Your task to perform on an android device: check android version Image 0: 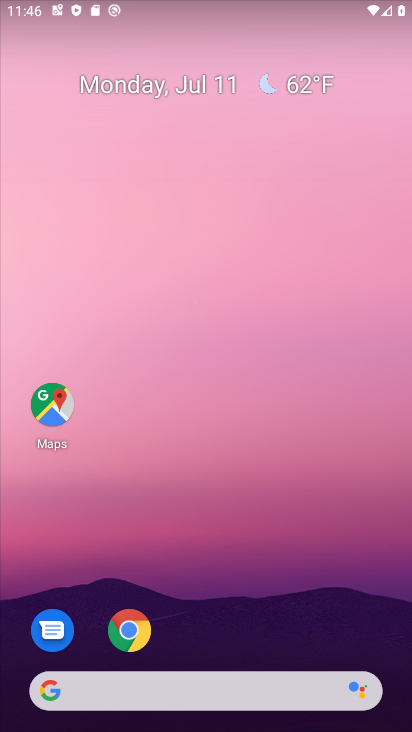
Step 0: drag from (231, 679) to (282, 71)
Your task to perform on an android device: check android version Image 1: 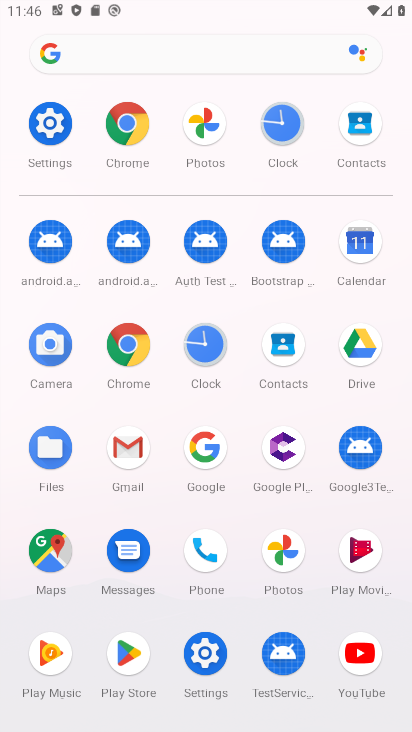
Step 1: click (51, 121)
Your task to perform on an android device: check android version Image 2: 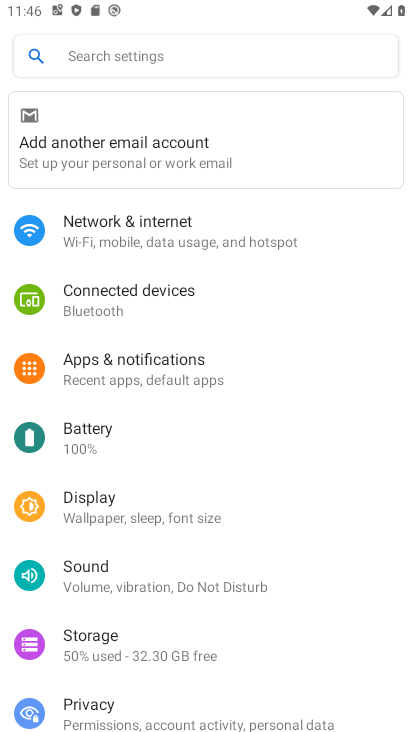
Step 2: drag from (160, 688) to (250, 100)
Your task to perform on an android device: check android version Image 3: 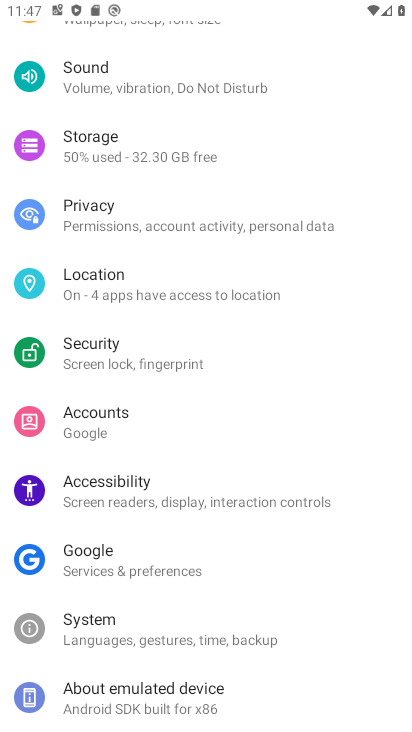
Step 3: click (206, 701)
Your task to perform on an android device: check android version Image 4: 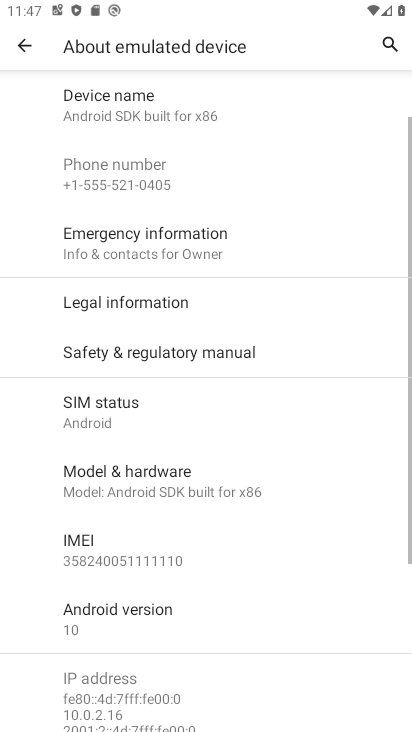
Step 4: click (166, 626)
Your task to perform on an android device: check android version Image 5: 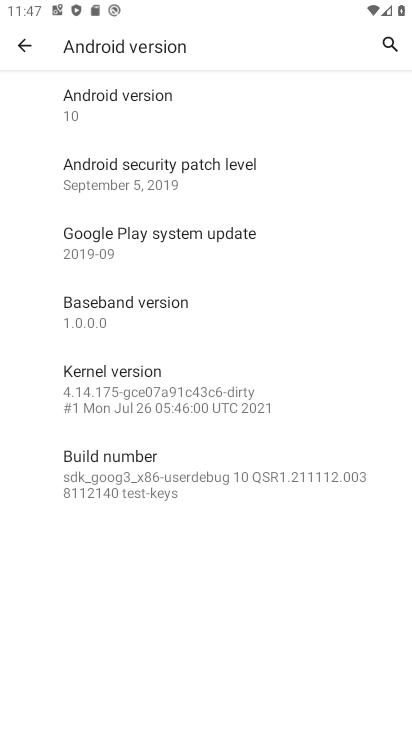
Step 5: task complete